Your task to perform on an android device: Open calendar and show me the first week of next month Image 0: 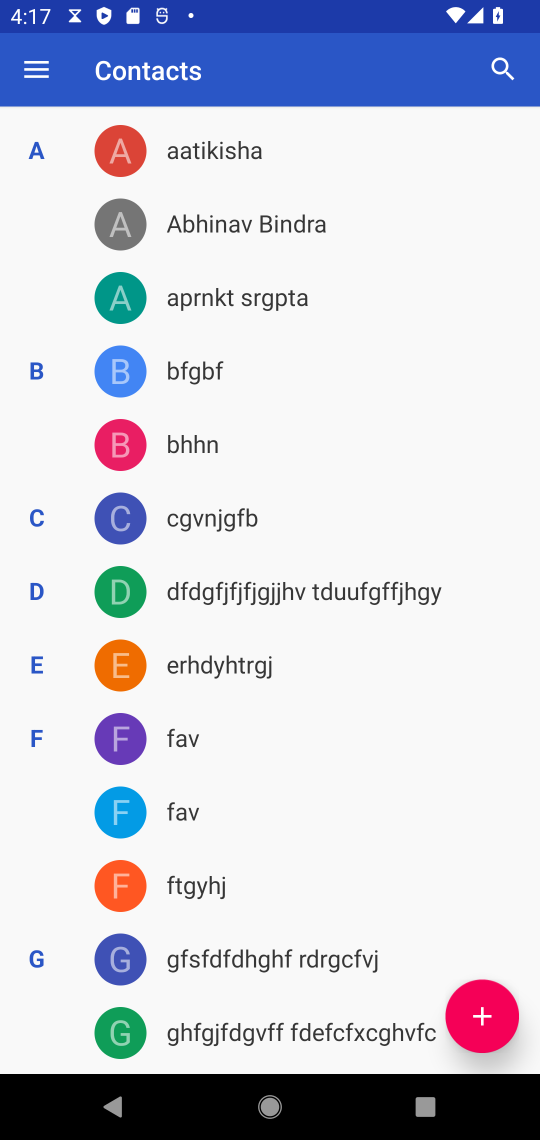
Step 0: press home button
Your task to perform on an android device: Open calendar and show me the first week of next month Image 1: 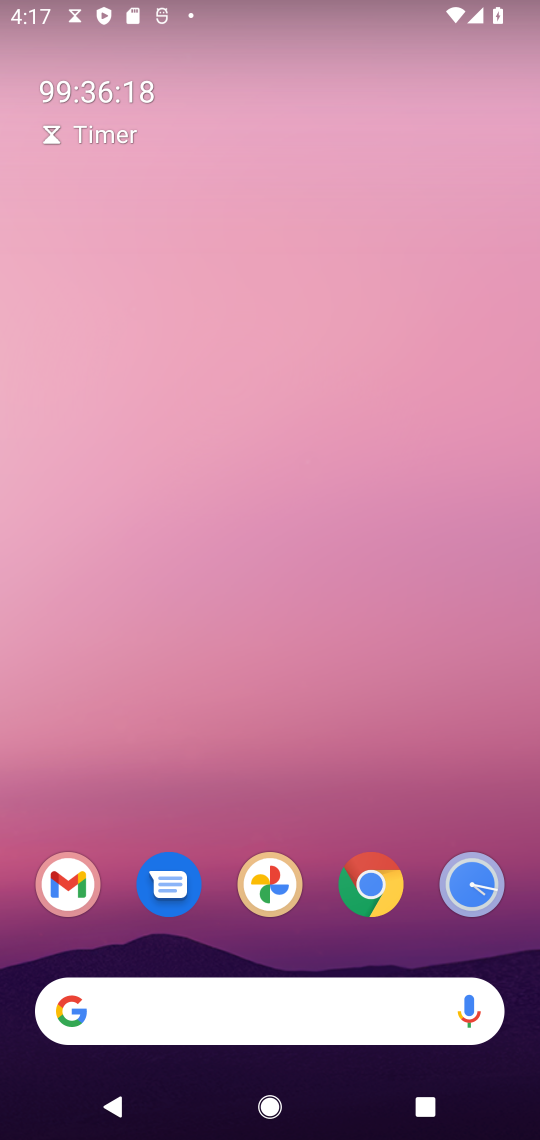
Step 1: drag from (262, 936) to (258, 267)
Your task to perform on an android device: Open calendar and show me the first week of next month Image 2: 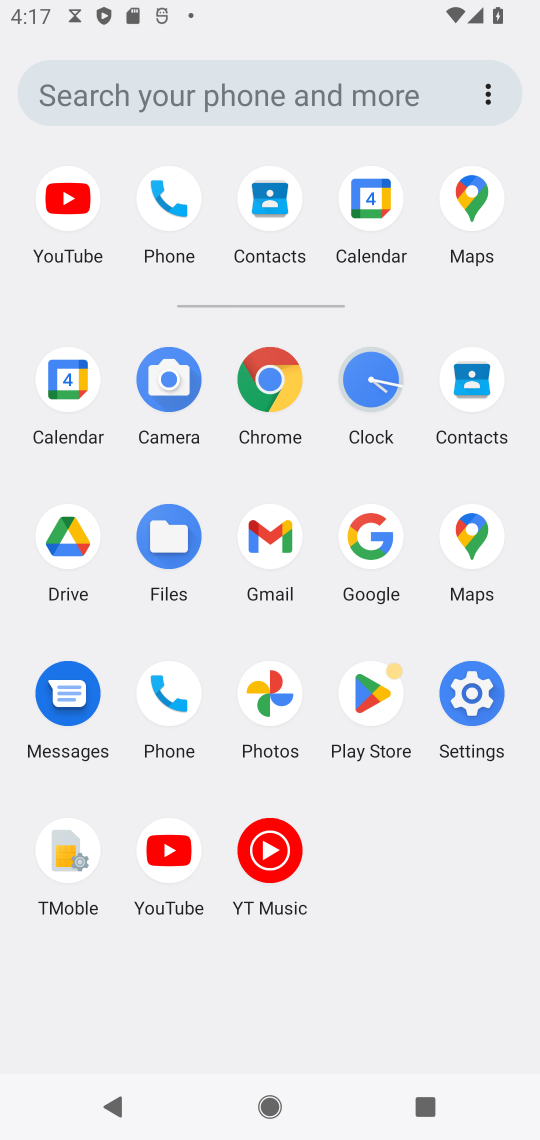
Step 2: click (366, 191)
Your task to perform on an android device: Open calendar and show me the first week of next month Image 3: 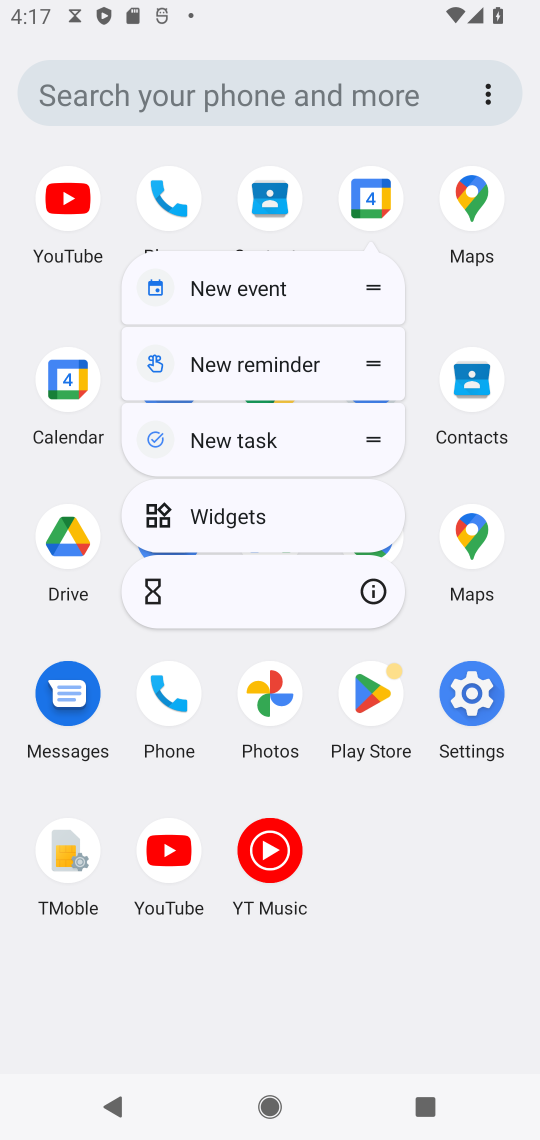
Step 3: click (366, 191)
Your task to perform on an android device: Open calendar and show me the first week of next month Image 4: 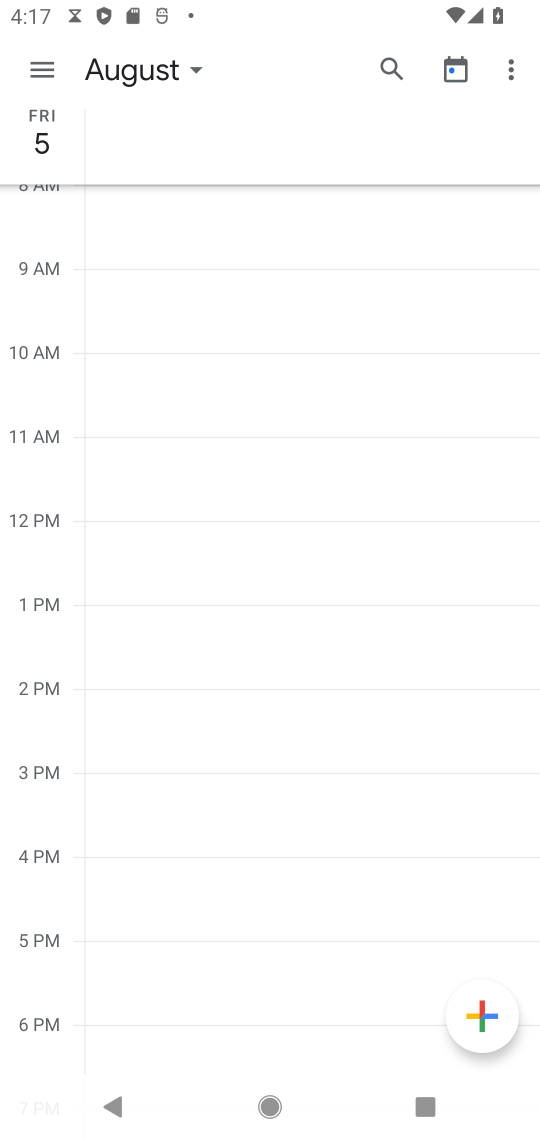
Step 4: click (53, 58)
Your task to perform on an android device: Open calendar and show me the first week of next month Image 5: 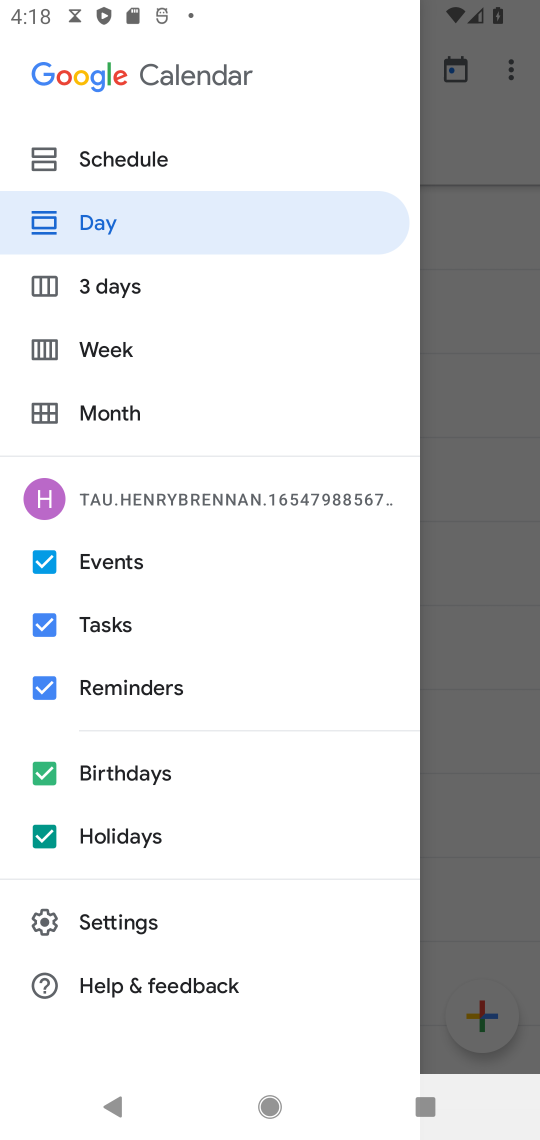
Step 5: click (153, 350)
Your task to perform on an android device: Open calendar and show me the first week of next month Image 6: 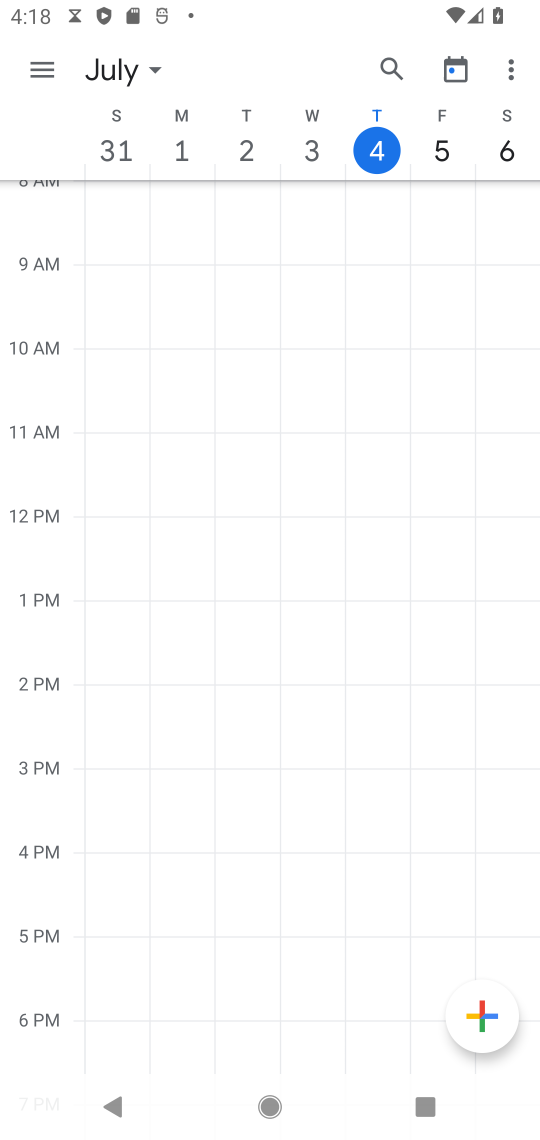
Step 6: task complete